Your task to perform on an android device: Open eBay Image 0: 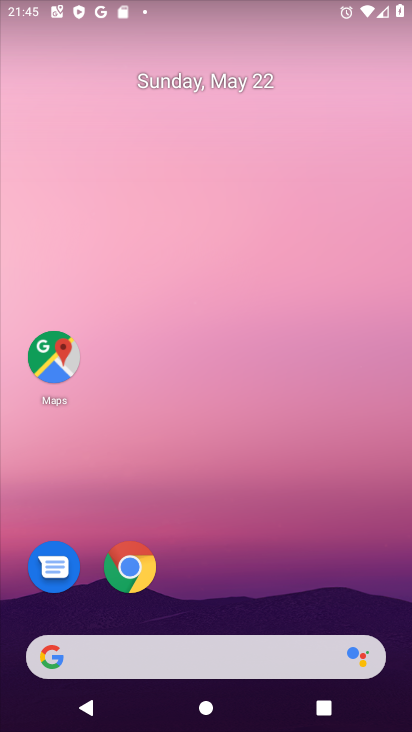
Step 0: click (132, 566)
Your task to perform on an android device: Open eBay Image 1: 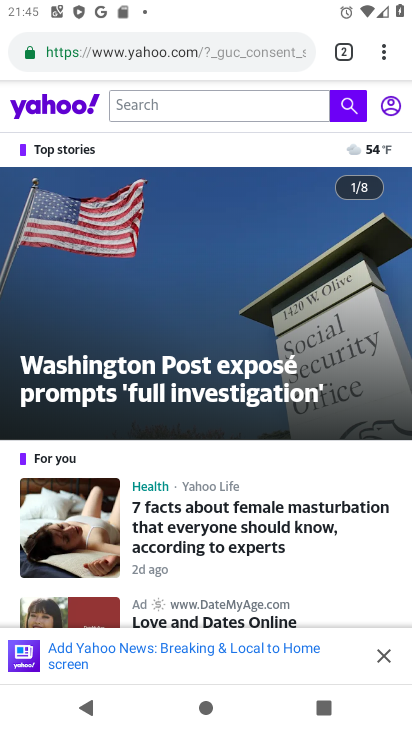
Step 1: click (93, 41)
Your task to perform on an android device: Open eBay Image 2: 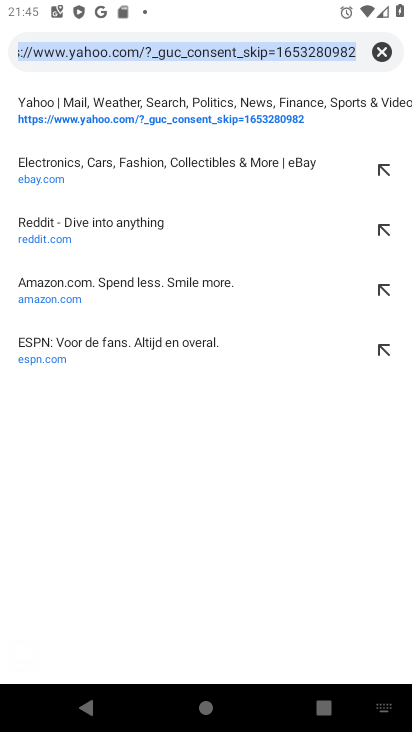
Step 2: type "eBay"
Your task to perform on an android device: Open eBay Image 3: 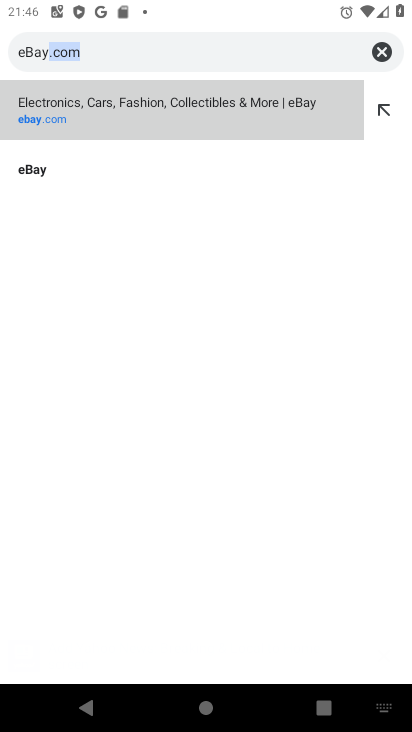
Step 3: click (73, 129)
Your task to perform on an android device: Open eBay Image 4: 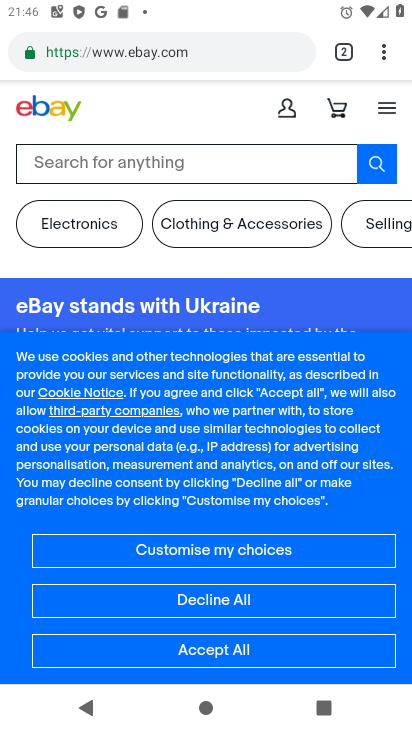
Step 4: task complete